Your task to perform on an android device: open sync settings in chrome Image 0: 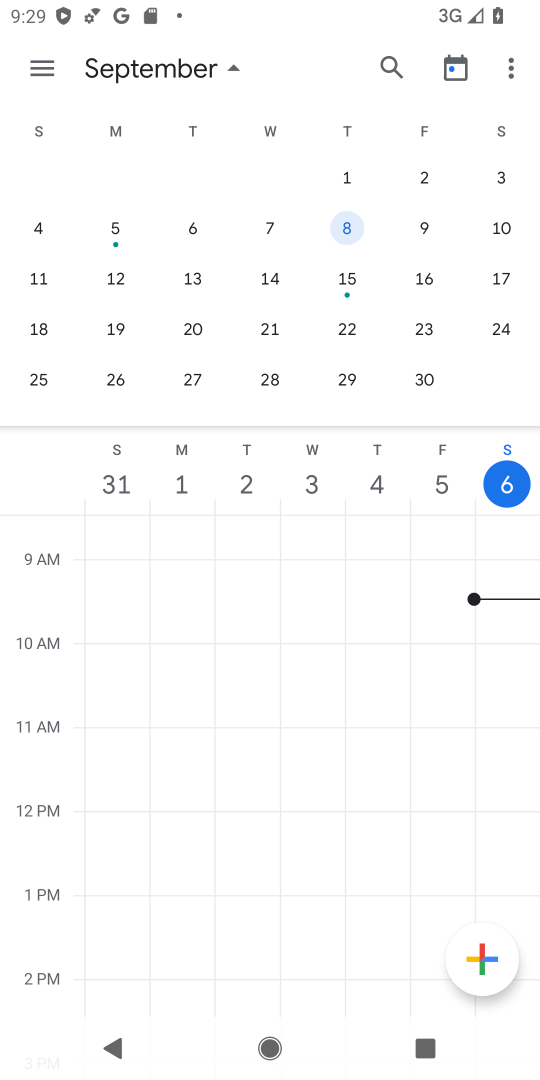
Step 0: press home button
Your task to perform on an android device: open sync settings in chrome Image 1: 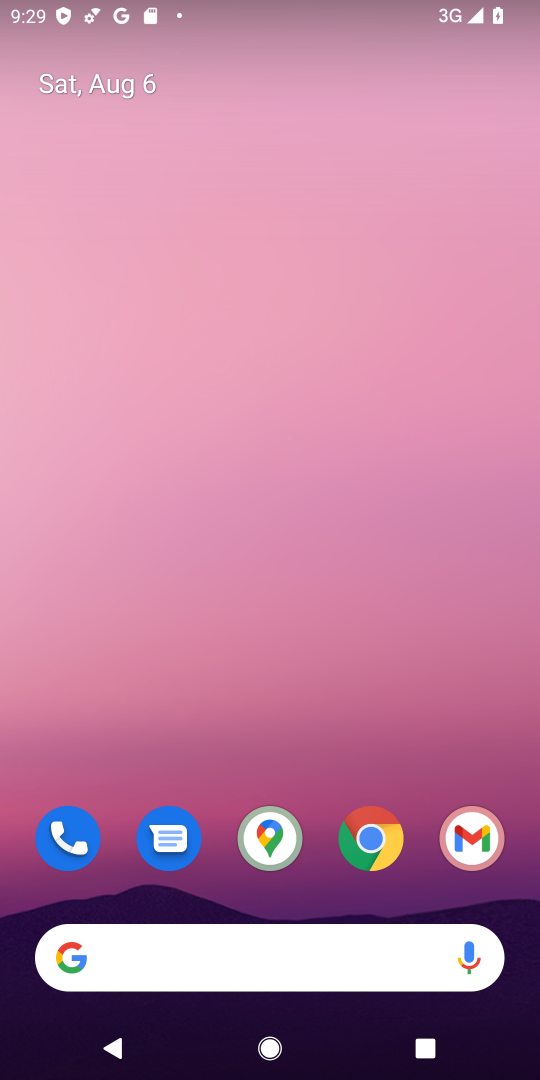
Step 1: click (391, 858)
Your task to perform on an android device: open sync settings in chrome Image 2: 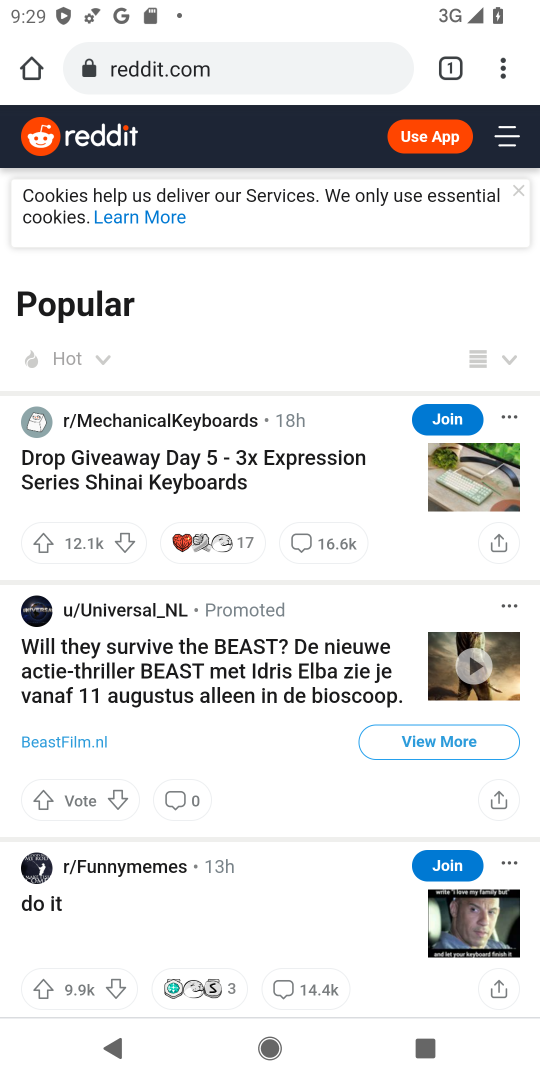
Step 2: click (504, 65)
Your task to perform on an android device: open sync settings in chrome Image 3: 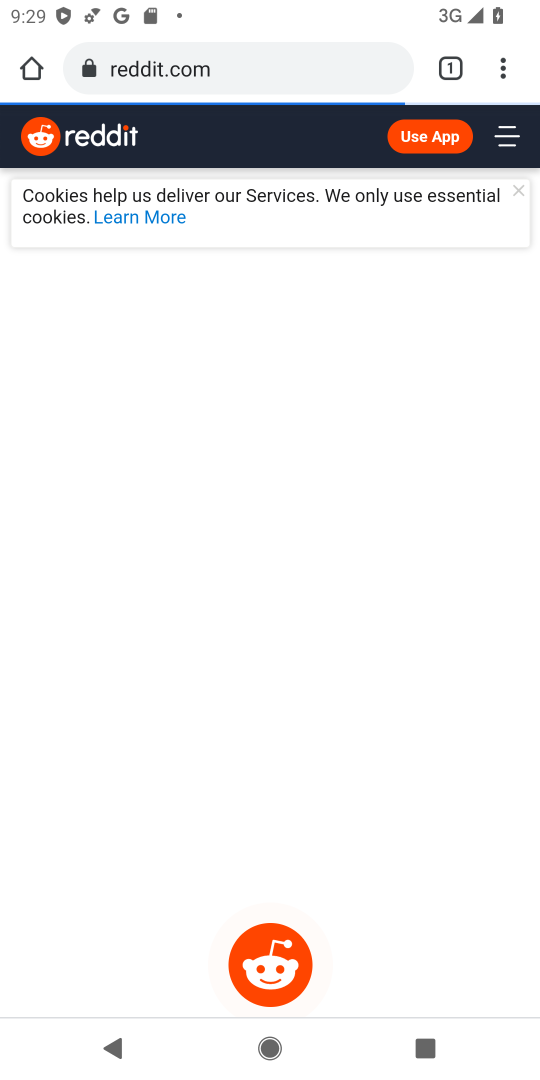
Step 3: click (505, 91)
Your task to perform on an android device: open sync settings in chrome Image 4: 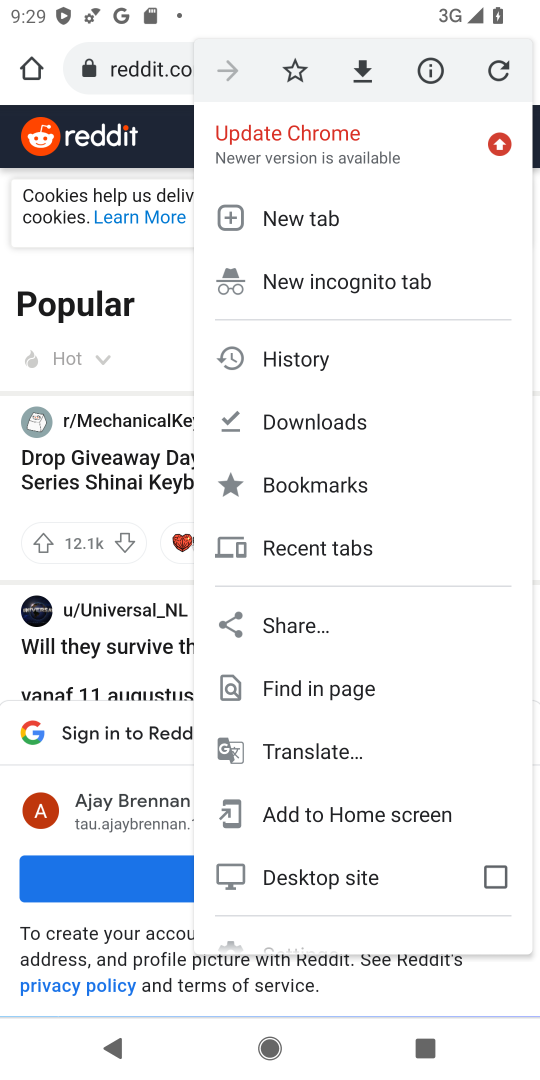
Step 4: drag from (375, 748) to (342, 554)
Your task to perform on an android device: open sync settings in chrome Image 5: 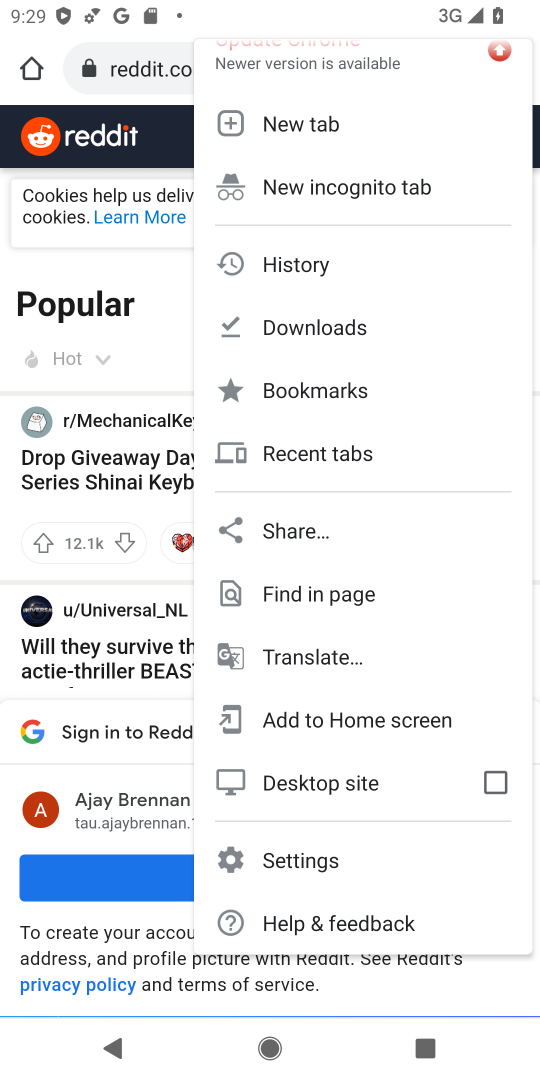
Step 5: click (397, 861)
Your task to perform on an android device: open sync settings in chrome Image 6: 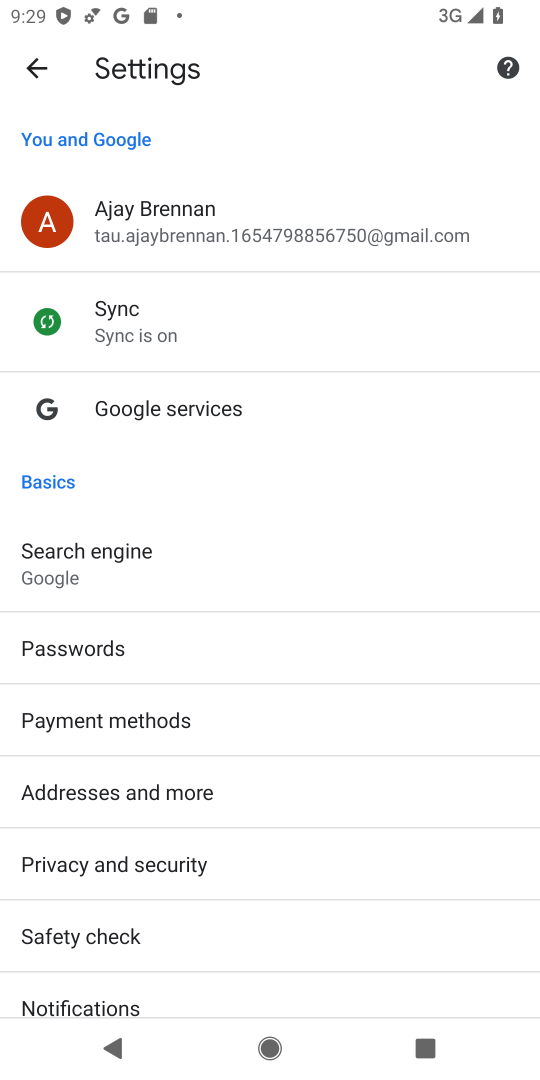
Step 6: click (272, 299)
Your task to perform on an android device: open sync settings in chrome Image 7: 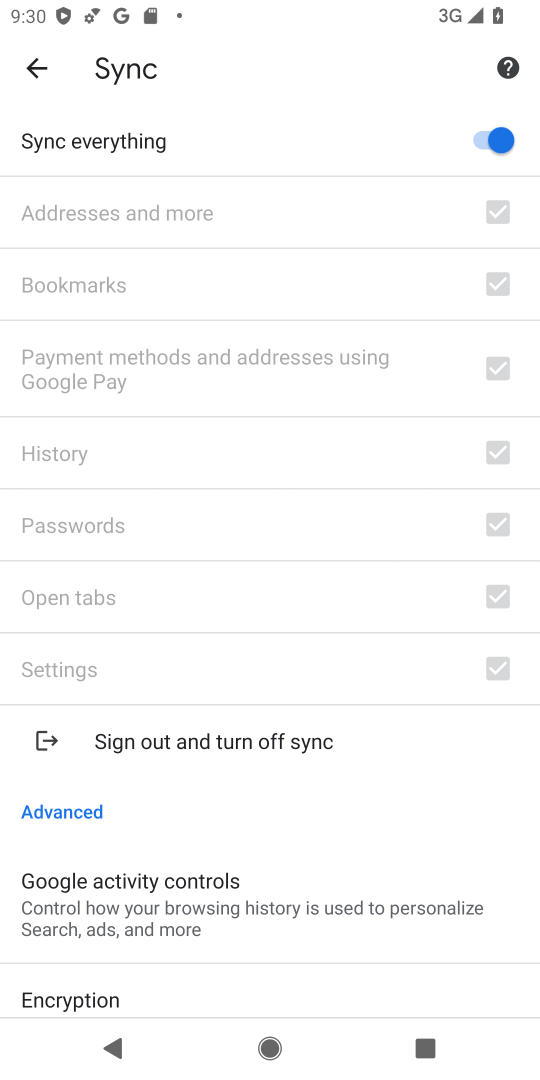
Step 7: task complete